Your task to perform on an android device: find which apps use the phone's location Image 0: 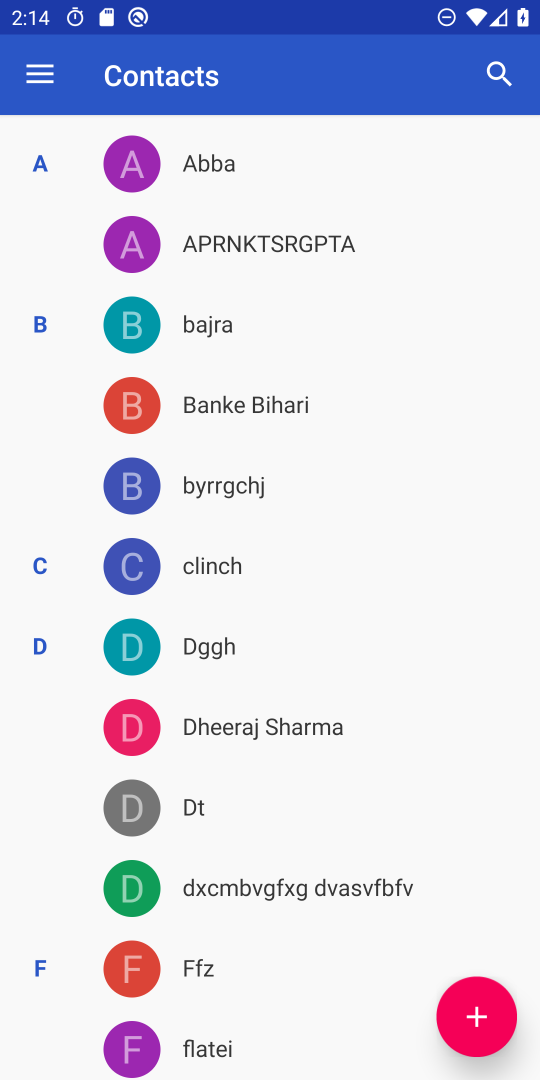
Step 0: press home button
Your task to perform on an android device: find which apps use the phone's location Image 1: 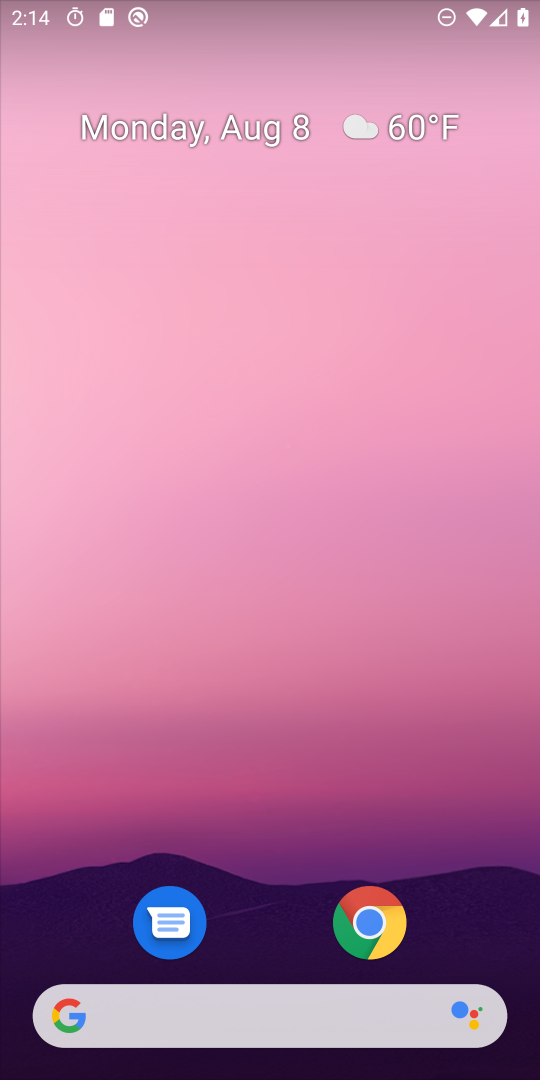
Step 1: drag from (250, 619) to (258, 267)
Your task to perform on an android device: find which apps use the phone's location Image 2: 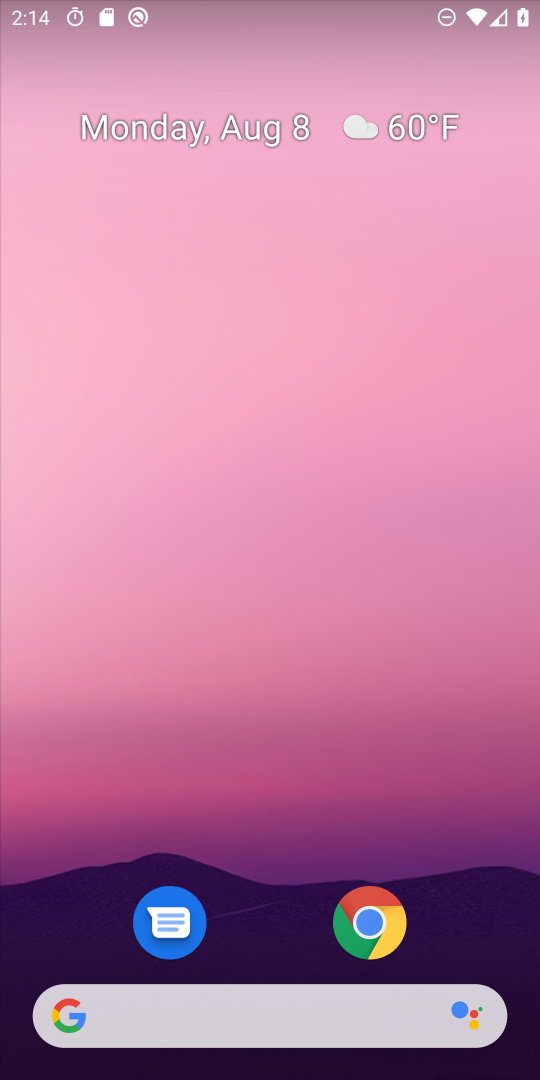
Step 2: drag from (255, 881) to (303, 160)
Your task to perform on an android device: find which apps use the phone's location Image 3: 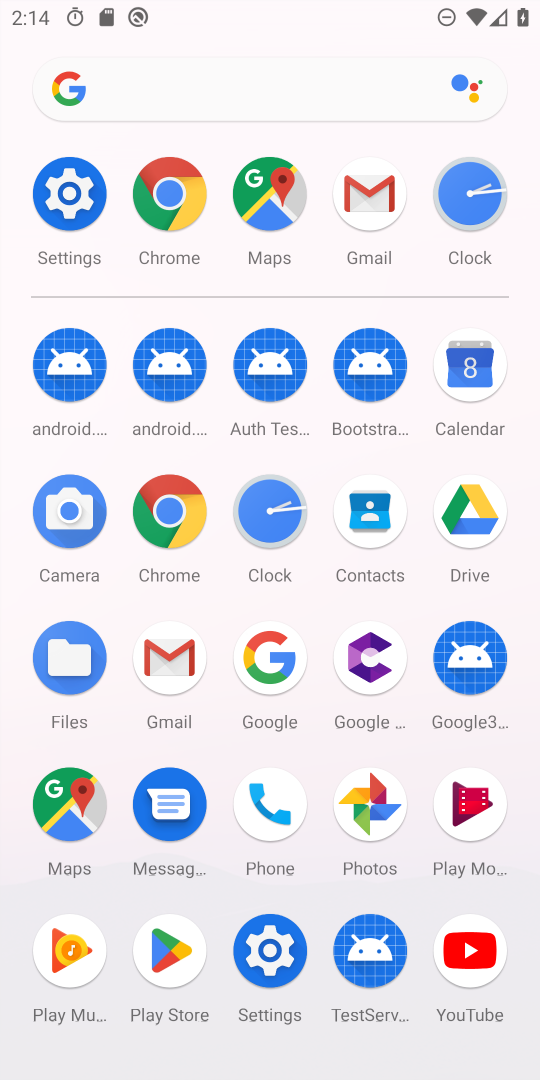
Step 3: click (278, 950)
Your task to perform on an android device: find which apps use the phone's location Image 4: 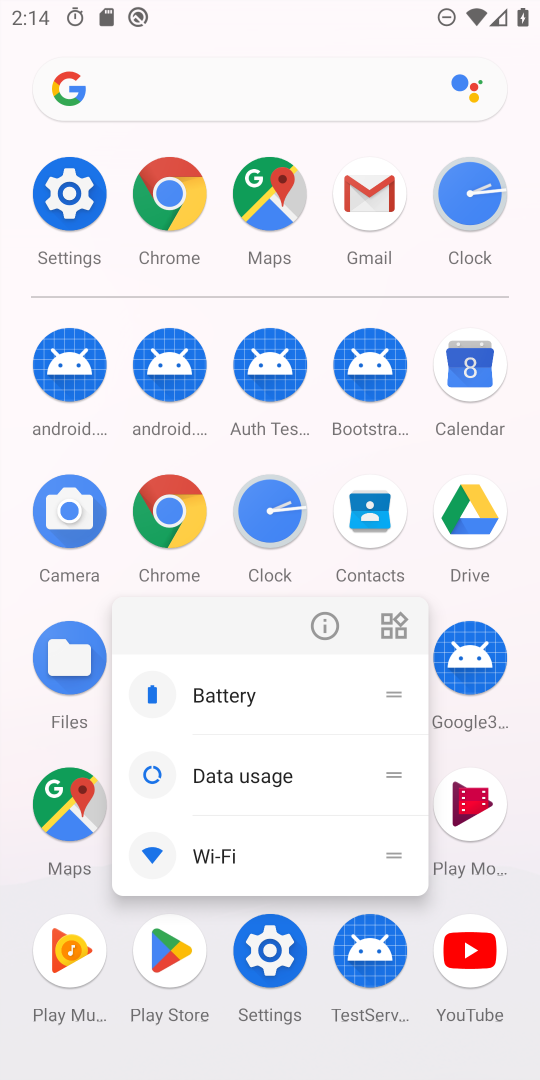
Step 4: click (255, 952)
Your task to perform on an android device: find which apps use the phone's location Image 5: 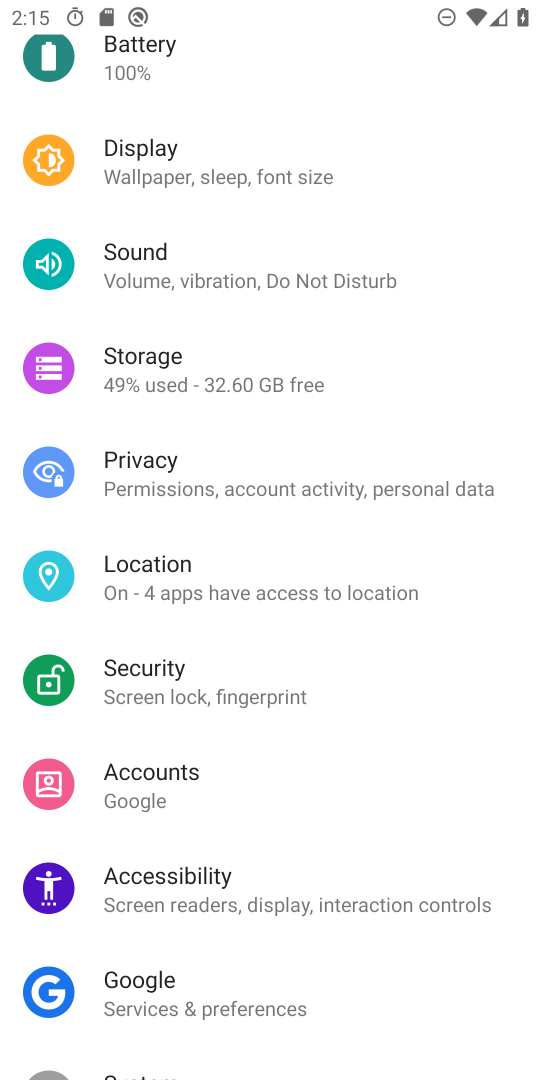
Step 5: click (207, 578)
Your task to perform on an android device: find which apps use the phone's location Image 6: 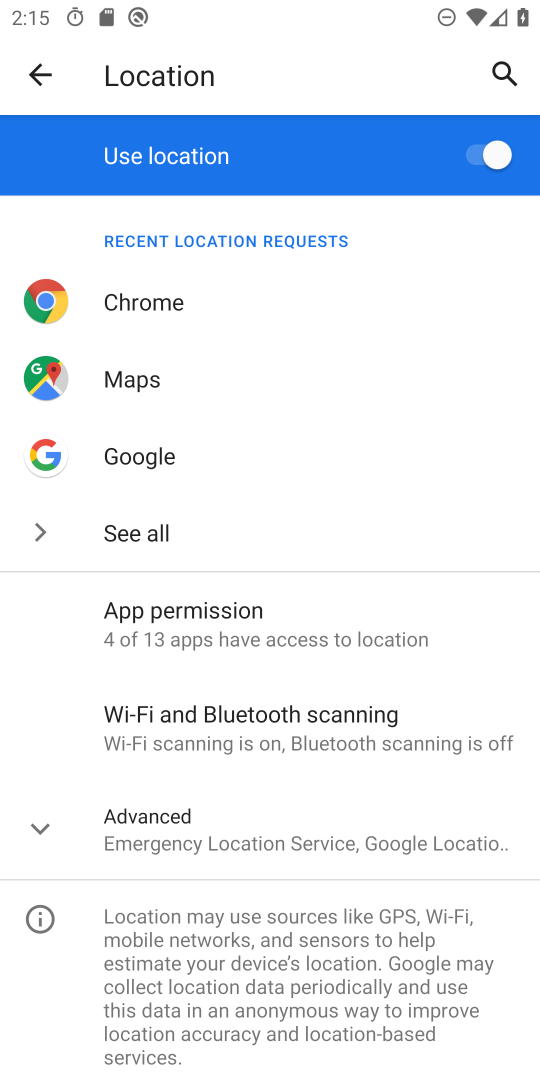
Step 6: click (256, 624)
Your task to perform on an android device: find which apps use the phone's location Image 7: 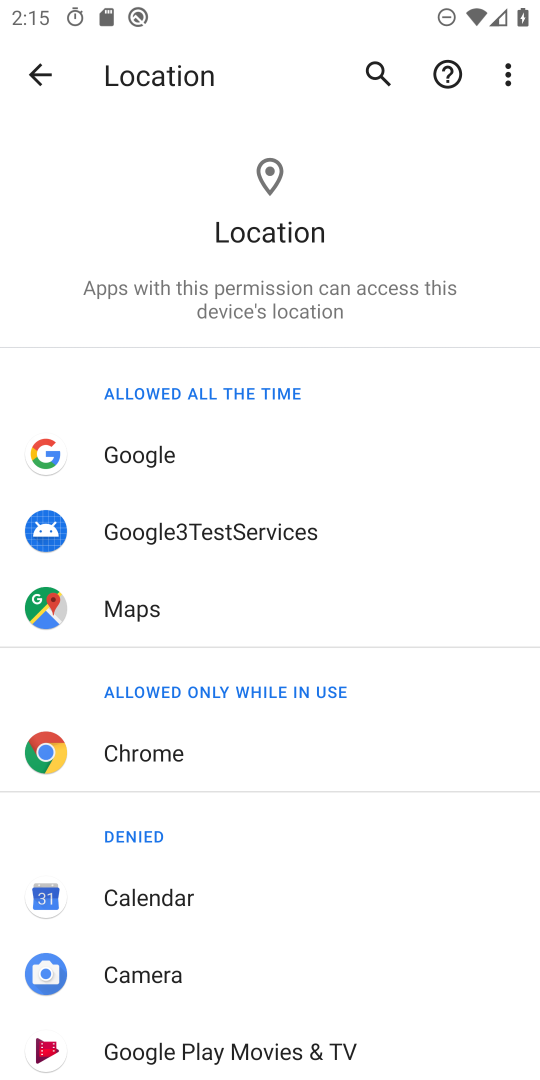
Step 7: task complete